Your task to perform on an android device: clear all cookies in the chrome app Image 0: 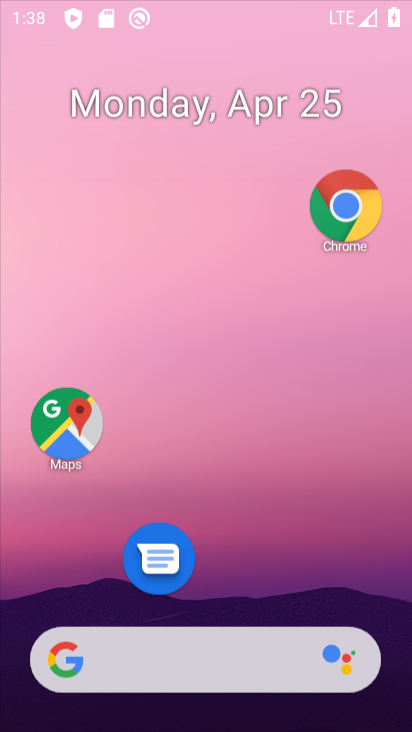
Step 0: drag from (257, 511) to (284, 135)
Your task to perform on an android device: clear all cookies in the chrome app Image 1: 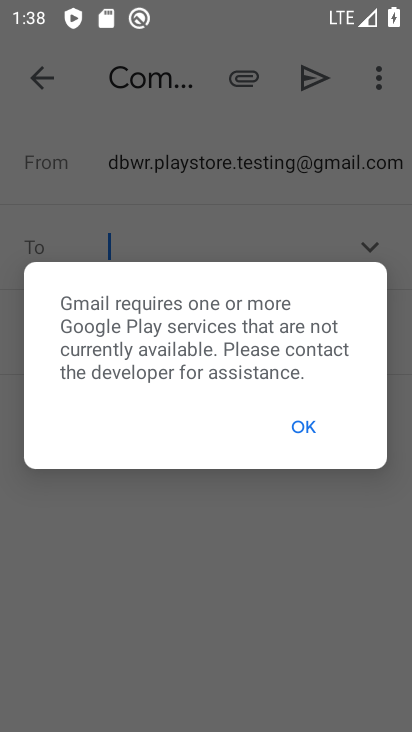
Step 1: press back button
Your task to perform on an android device: clear all cookies in the chrome app Image 2: 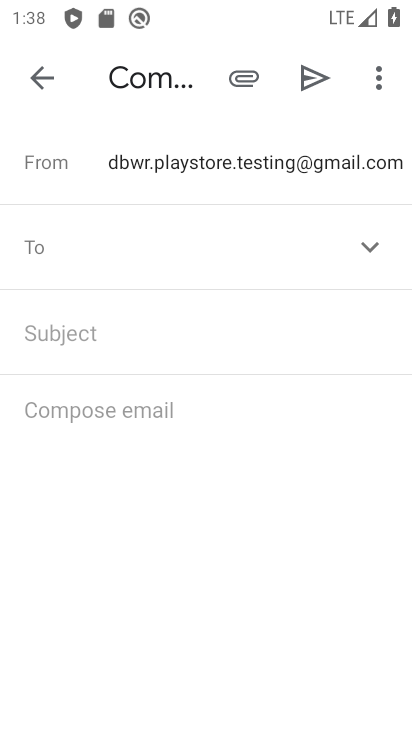
Step 2: press back button
Your task to perform on an android device: clear all cookies in the chrome app Image 3: 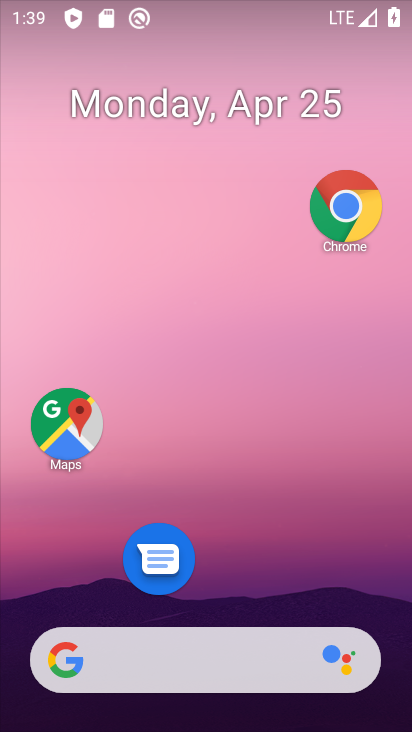
Step 3: click (352, 209)
Your task to perform on an android device: clear all cookies in the chrome app Image 4: 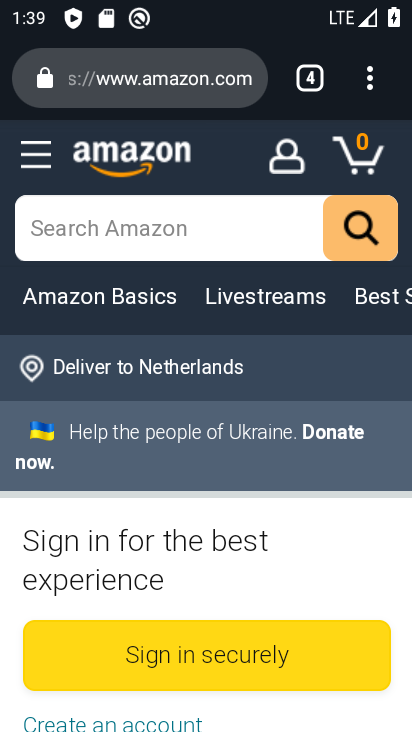
Step 4: click (380, 69)
Your task to perform on an android device: clear all cookies in the chrome app Image 5: 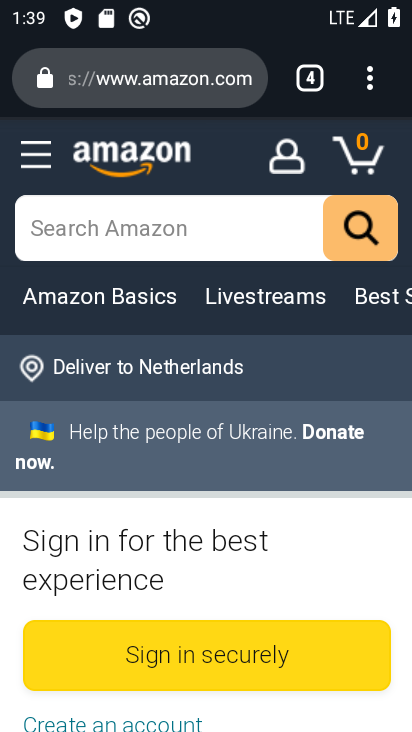
Step 5: drag from (366, 74) to (97, 515)
Your task to perform on an android device: clear all cookies in the chrome app Image 6: 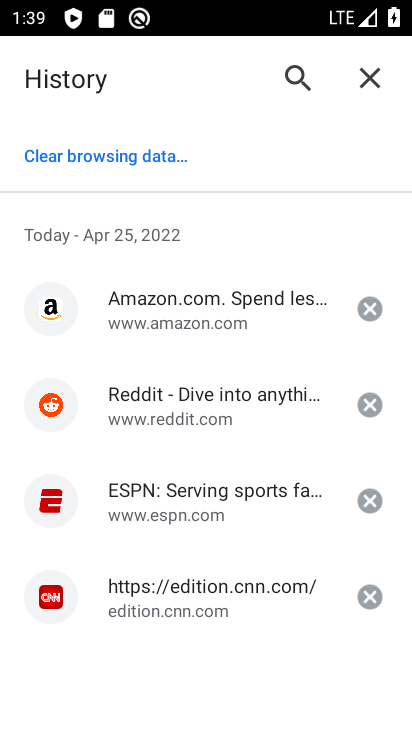
Step 6: click (130, 143)
Your task to perform on an android device: clear all cookies in the chrome app Image 7: 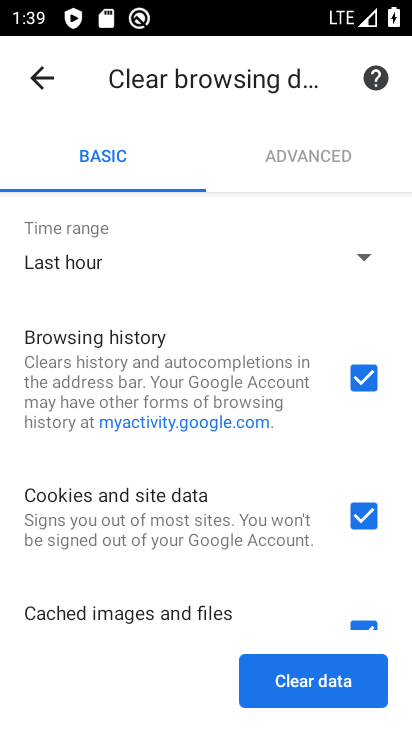
Step 7: click (363, 385)
Your task to perform on an android device: clear all cookies in the chrome app Image 8: 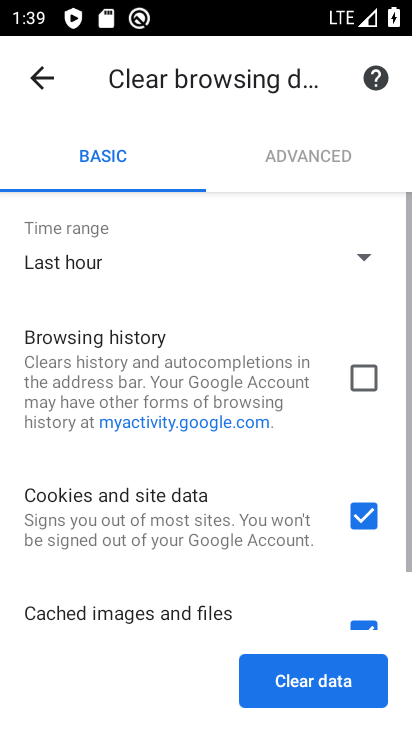
Step 8: drag from (222, 539) to (255, 342)
Your task to perform on an android device: clear all cookies in the chrome app Image 9: 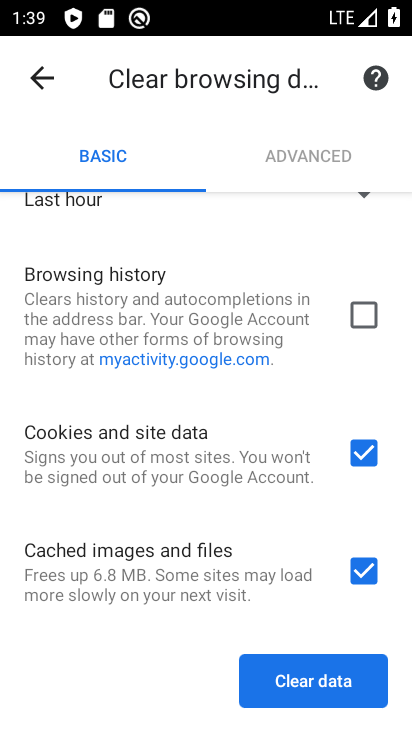
Step 9: click (358, 569)
Your task to perform on an android device: clear all cookies in the chrome app Image 10: 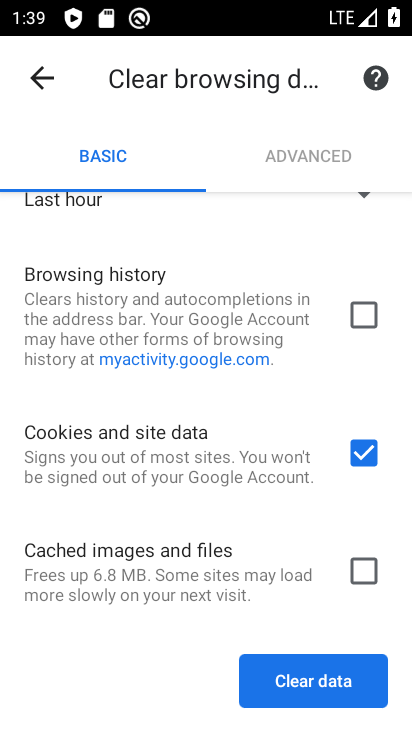
Step 10: click (292, 679)
Your task to perform on an android device: clear all cookies in the chrome app Image 11: 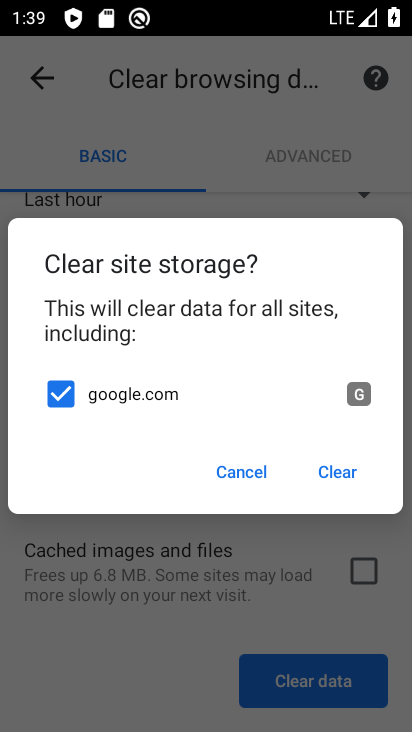
Step 11: click (329, 465)
Your task to perform on an android device: clear all cookies in the chrome app Image 12: 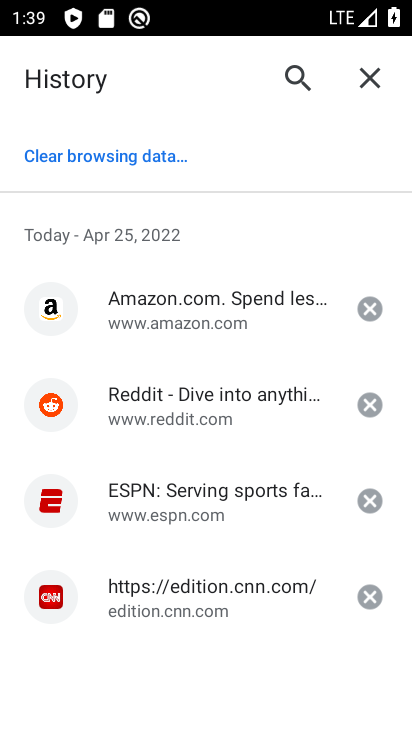
Step 12: task complete